Your task to perform on an android device: change notifications settings Image 0: 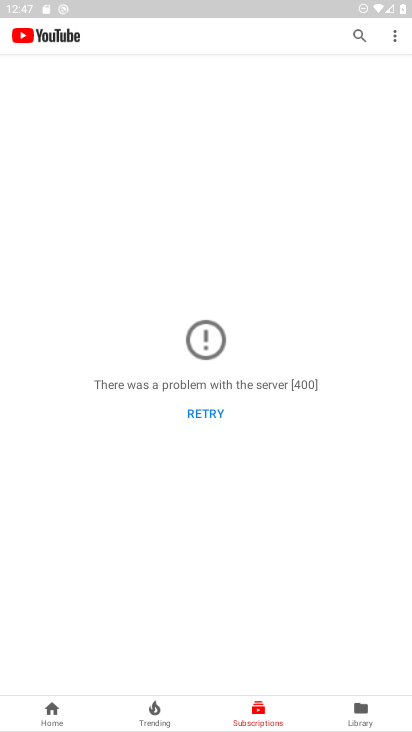
Step 0: drag from (264, 16) to (200, 682)
Your task to perform on an android device: change notifications settings Image 1: 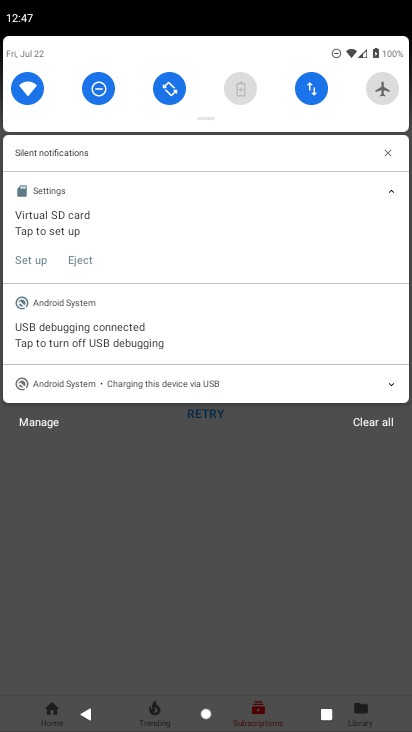
Step 1: drag from (222, 52) to (166, 556)
Your task to perform on an android device: change notifications settings Image 2: 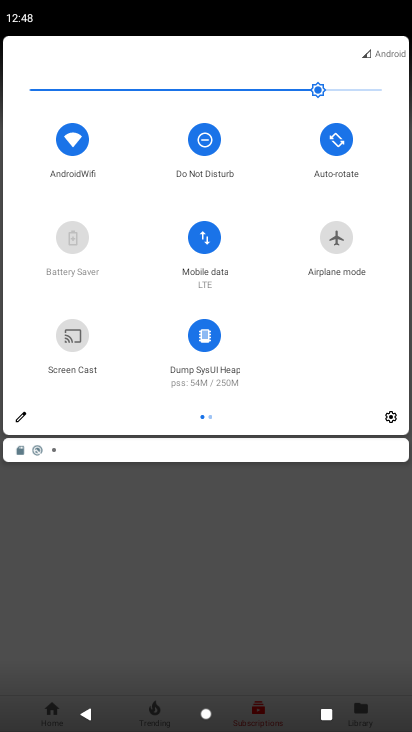
Step 2: click (381, 415)
Your task to perform on an android device: change notifications settings Image 3: 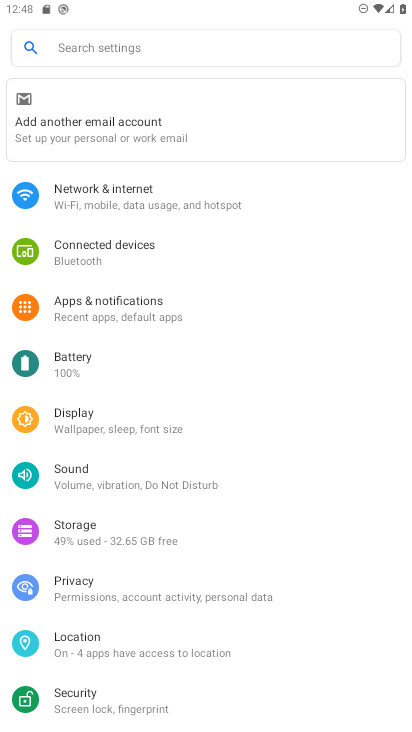
Step 3: click (143, 314)
Your task to perform on an android device: change notifications settings Image 4: 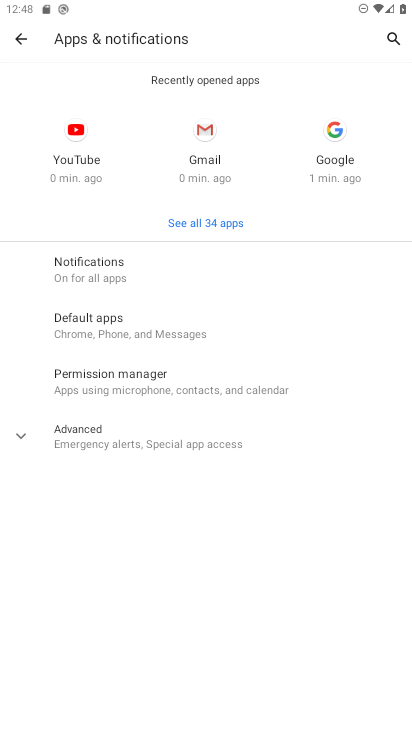
Step 4: task complete